Your task to perform on an android device: open wifi settings Image 0: 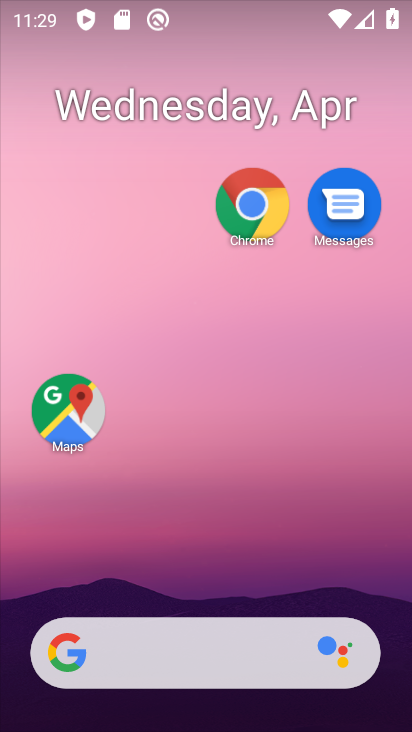
Step 0: drag from (219, 590) to (280, 13)
Your task to perform on an android device: open wifi settings Image 1: 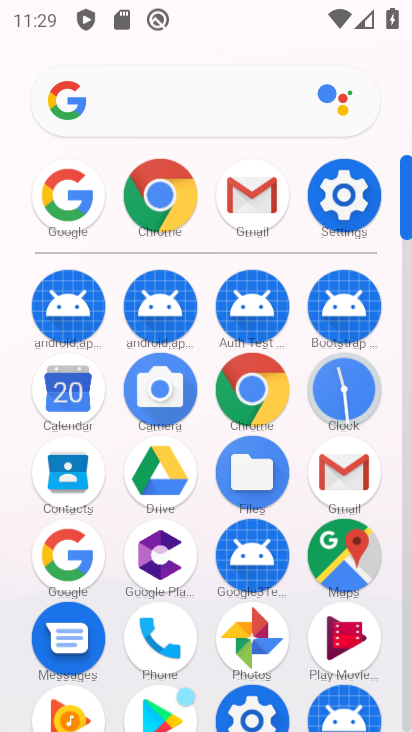
Step 1: click (330, 211)
Your task to perform on an android device: open wifi settings Image 2: 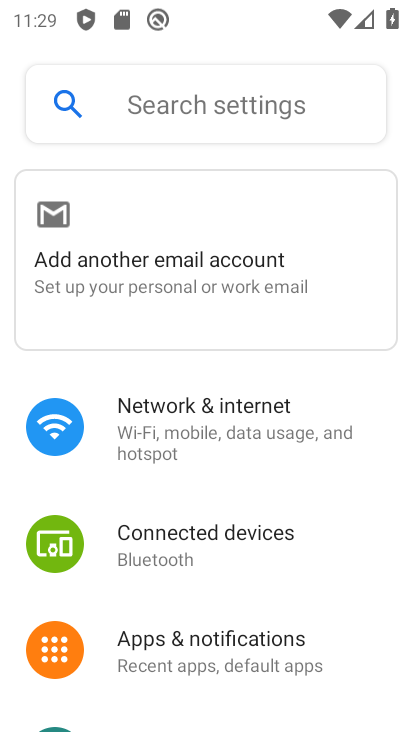
Step 2: click (195, 428)
Your task to perform on an android device: open wifi settings Image 3: 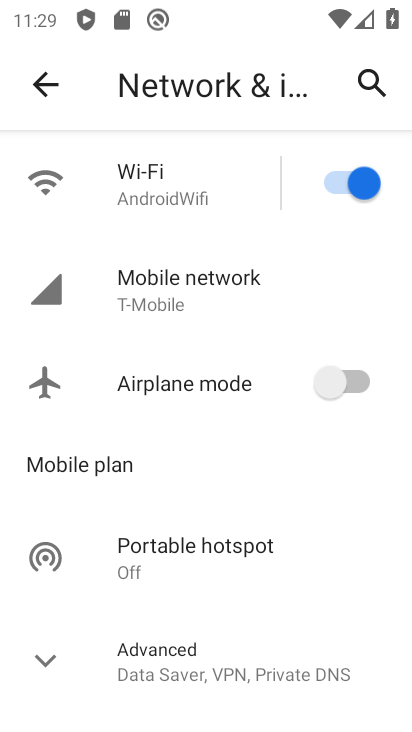
Step 3: click (169, 179)
Your task to perform on an android device: open wifi settings Image 4: 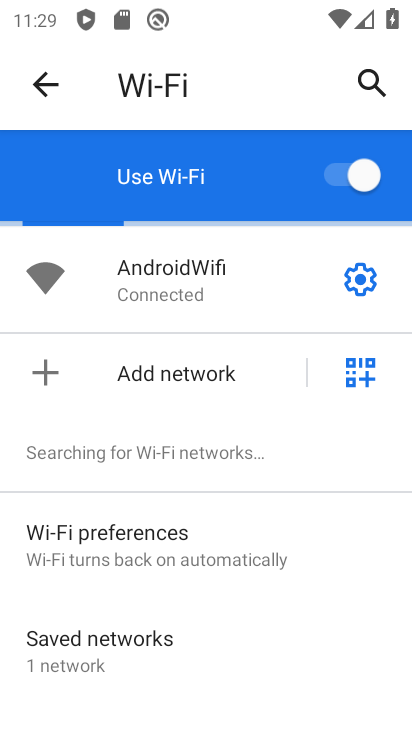
Step 4: task complete